Your task to perform on an android device: toggle location history Image 0: 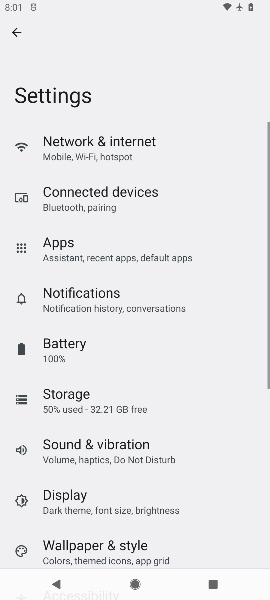
Step 0: press home button
Your task to perform on an android device: toggle location history Image 1: 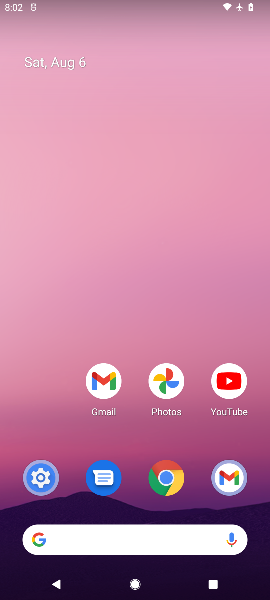
Step 1: press home button
Your task to perform on an android device: toggle location history Image 2: 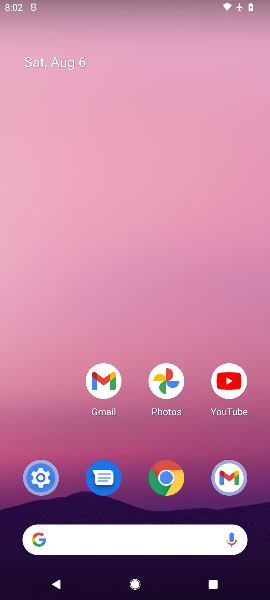
Step 2: drag from (73, 438) to (82, 61)
Your task to perform on an android device: toggle location history Image 3: 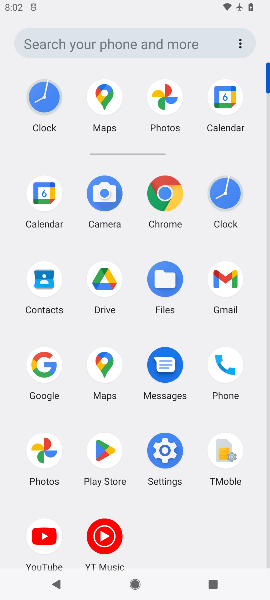
Step 3: click (171, 448)
Your task to perform on an android device: toggle location history Image 4: 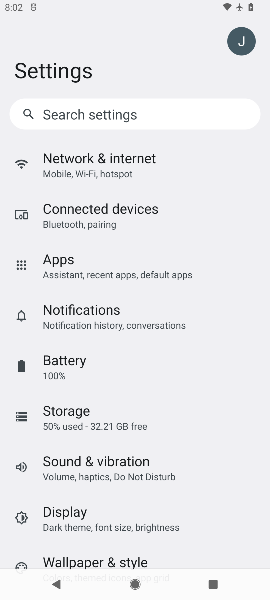
Step 4: drag from (193, 495) to (173, 208)
Your task to perform on an android device: toggle location history Image 5: 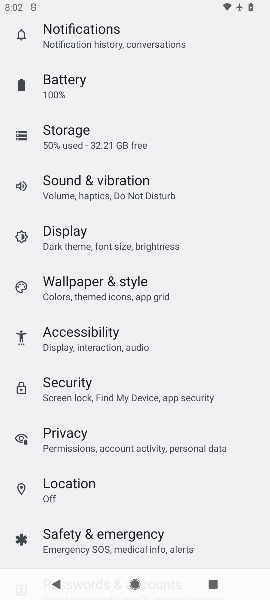
Step 5: click (77, 482)
Your task to perform on an android device: toggle location history Image 6: 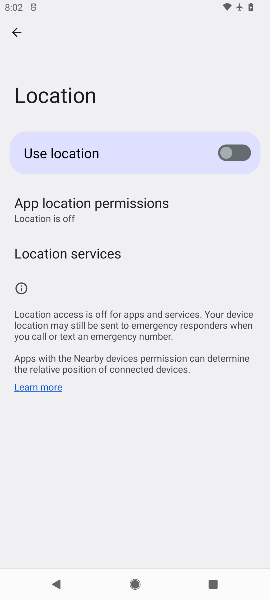
Step 6: click (28, 253)
Your task to perform on an android device: toggle location history Image 7: 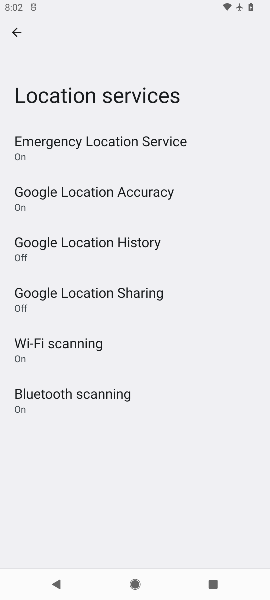
Step 7: click (94, 244)
Your task to perform on an android device: toggle location history Image 8: 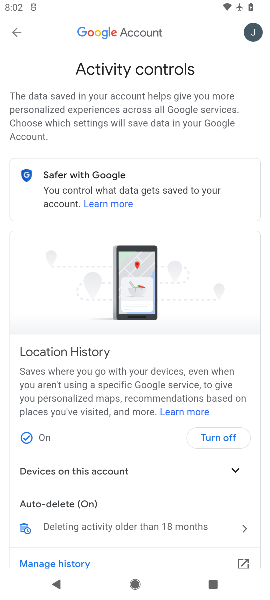
Step 8: click (235, 440)
Your task to perform on an android device: toggle location history Image 9: 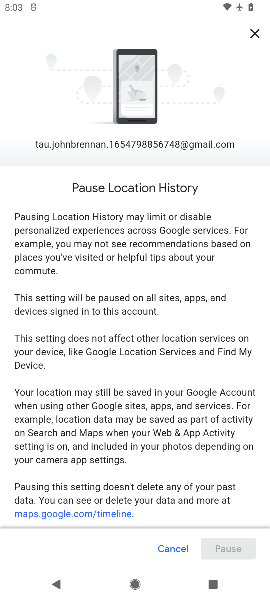
Step 9: drag from (220, 484) to (199, 54)
Your task to perform on an android device: toggle location history Image 10: 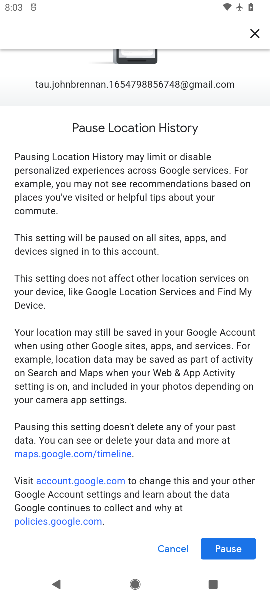
Step 10: click (226, 550)
Your task to perform on an android device: toggle location history Image 11: 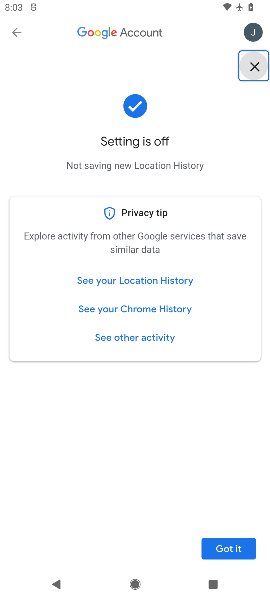
Step 11: click (240, 543)
Your task to perform on an android device: toggle location history Image 12: 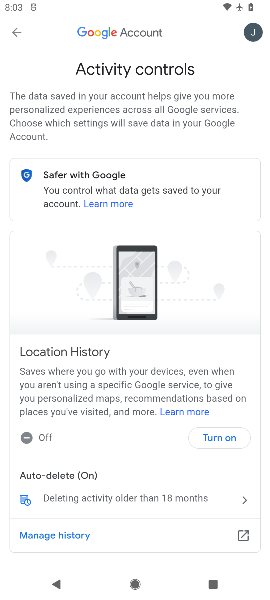
Step 12: task complete